Your task to perform on an android device: Clear the shopping cart on costco. Image 0: 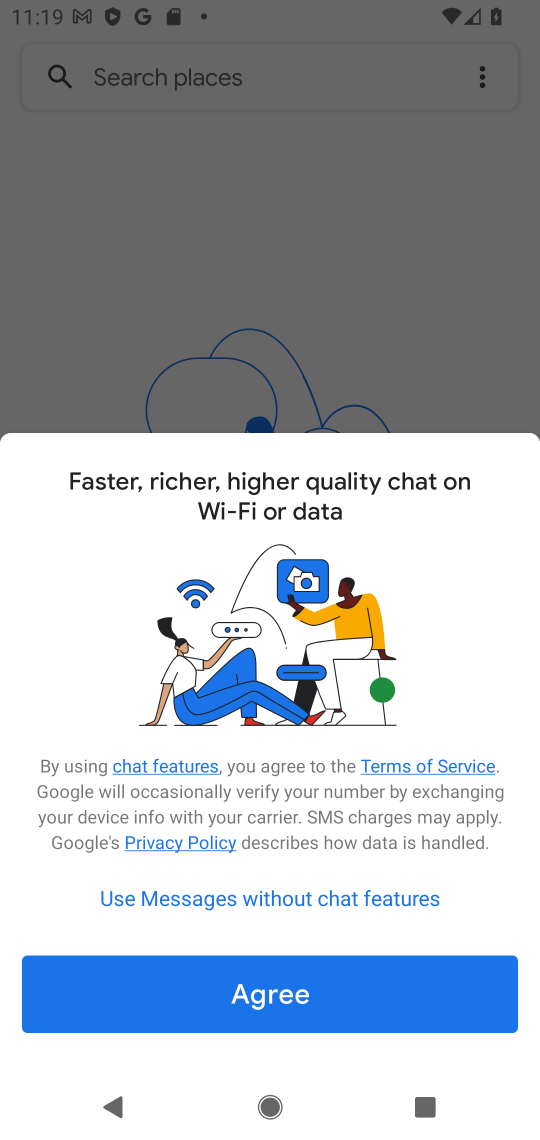
Step 0: press home button
Your task to perform on an android device: Clear the shopping cart on costco. Image 1: 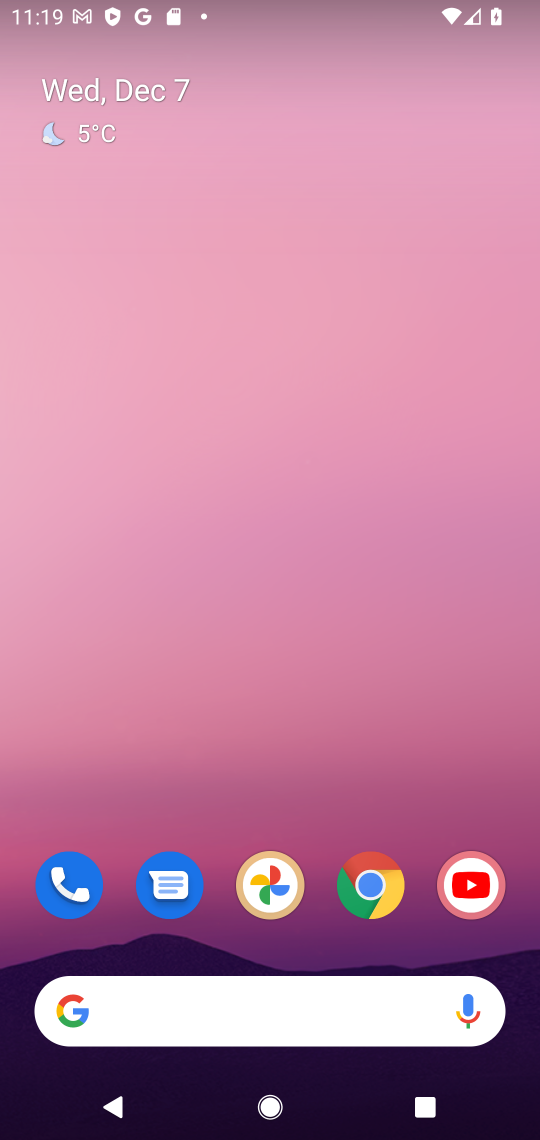
Step 1: click (376, 904)
Your task to perform on an android device: Clear the shopping cart on costco. Image 2: 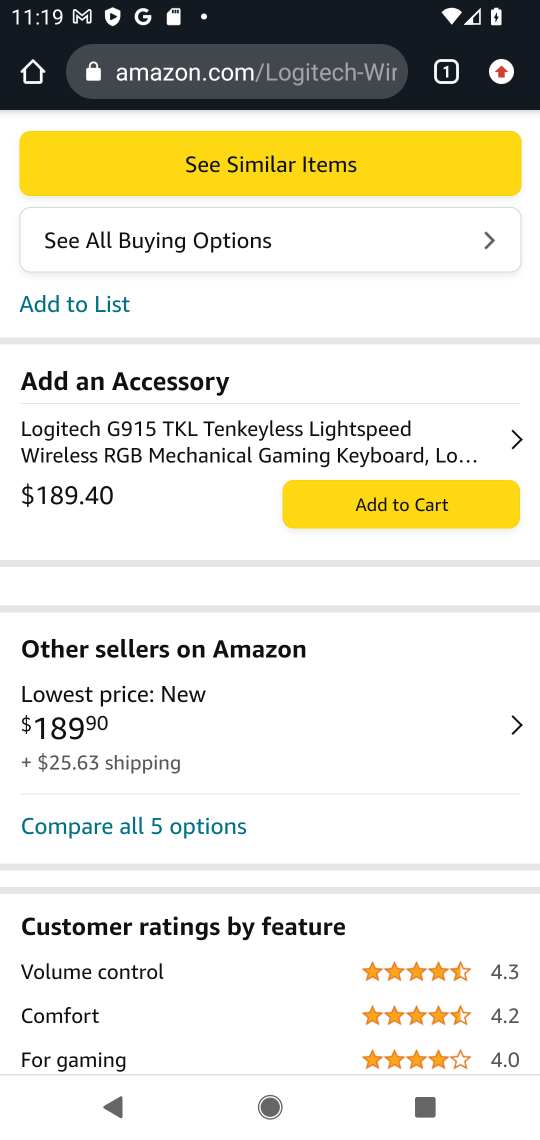
Step 2: click (262, 80)
Your task to perform on an android device: Clear the shopping cart on costco. Image 3: 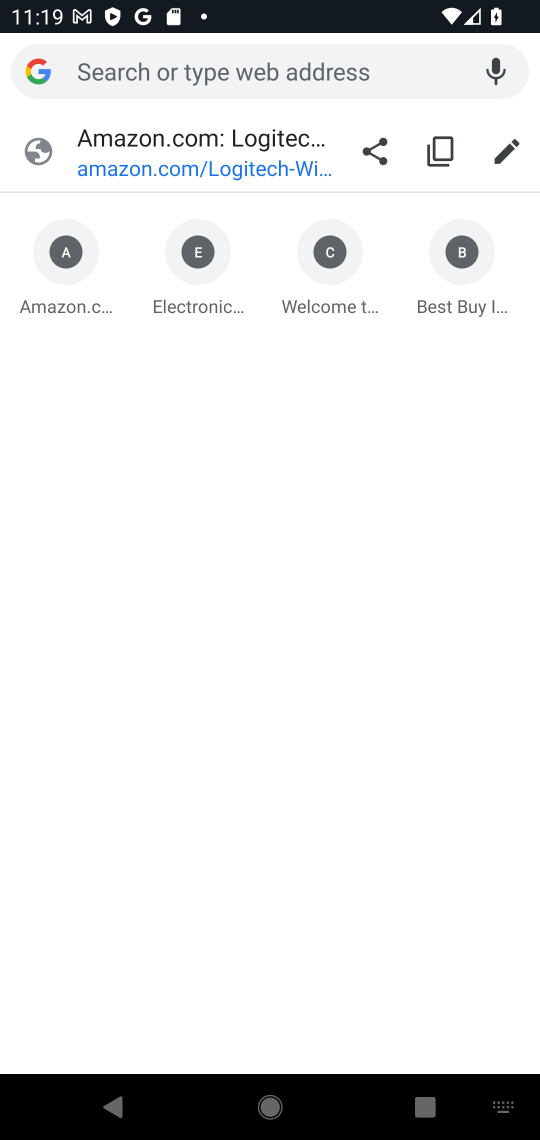
Step 3: type "COSTCO"
Your task to perform on an android device: Clear the shopping cart on costco. Image 4: 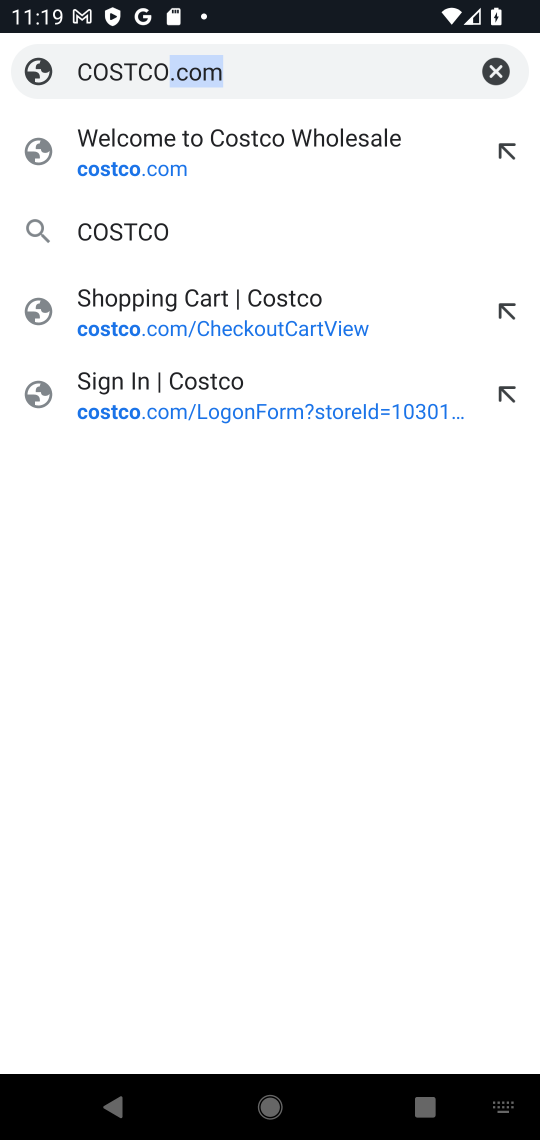
Step 4: click (133, 159)
Your task to perform on an android device: Clear the shopping cart on costco. Image 5: 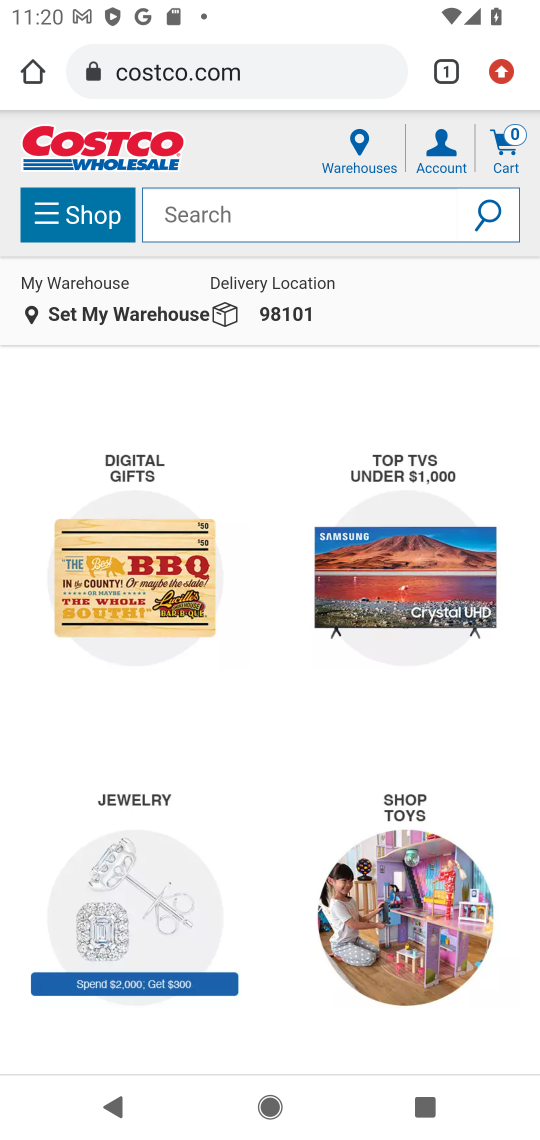
Step 5: task complete